Your task to perform on an android device: Open ESPN.com Image 0: 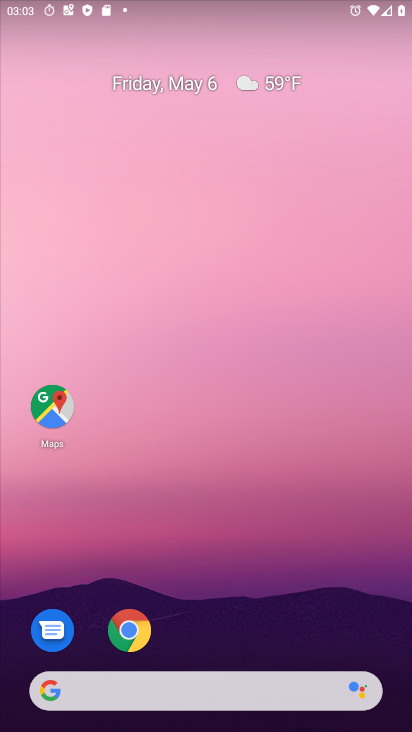
Step 0: drag from (202, 622) to (209, 277)
Your task to perform on an android device: Open ESPN.com Image 1: 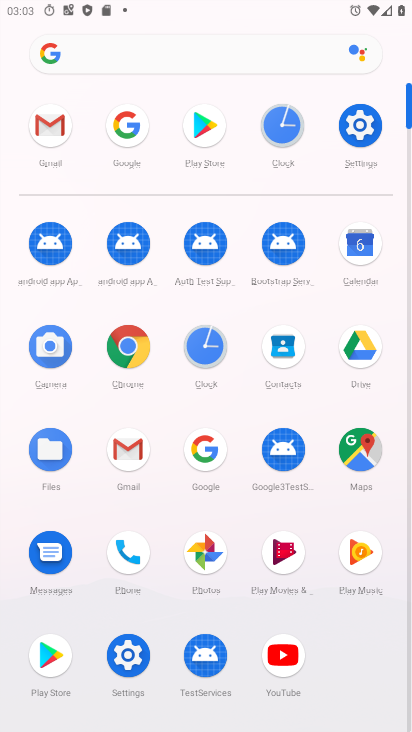
Step 1: click (131, 338)
Your task to perform on an android device: Open ESPN.com Image 2: 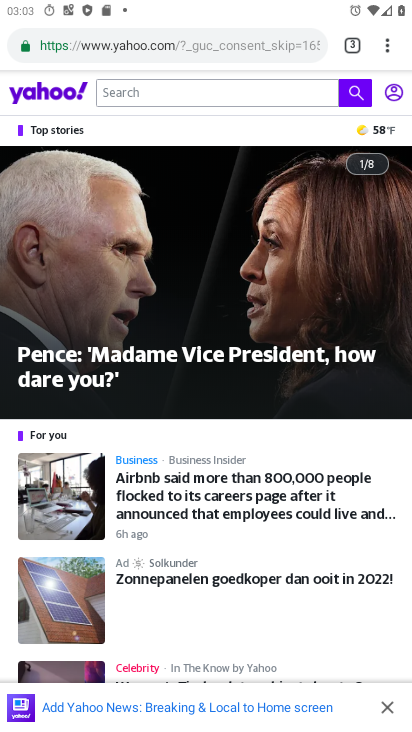
Step 2: click (351, 40)
Your task to perform on an android device: Open ESPN.com Image 3: 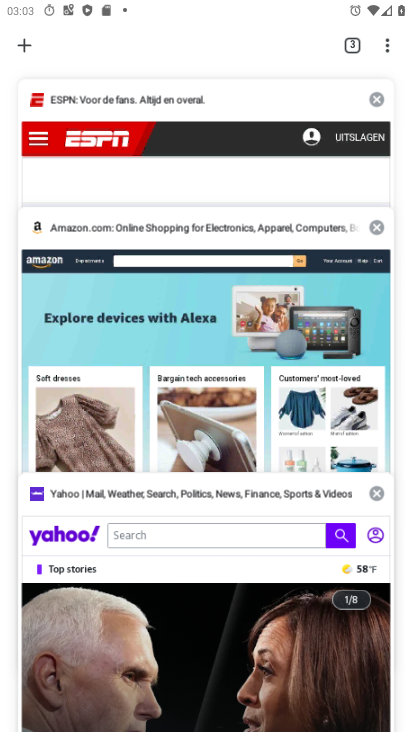
Step 3: click (31, 46)
Your task to perform on an android device: Open ESPN.com Image 4: 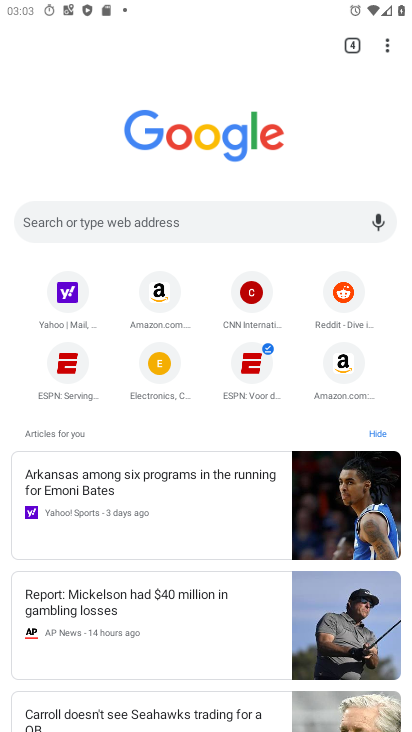
Step 4: click (78, 368)
Your task to perform on an android device: Open ESPN.com Image 5: 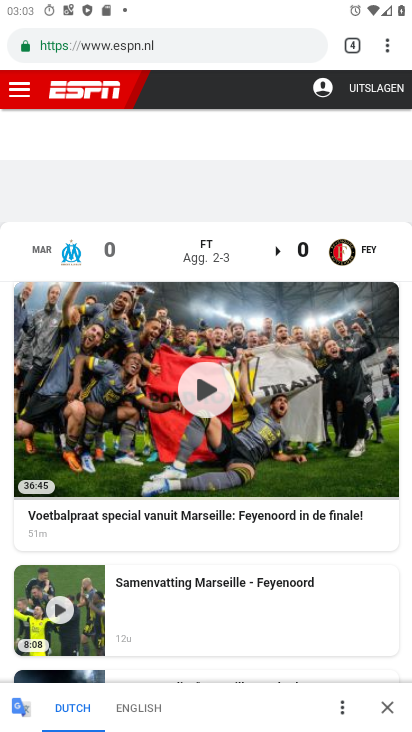
Step 5: task complete